Your task to perform on an android device: Open calendar and show me the third week of next month Image 0: 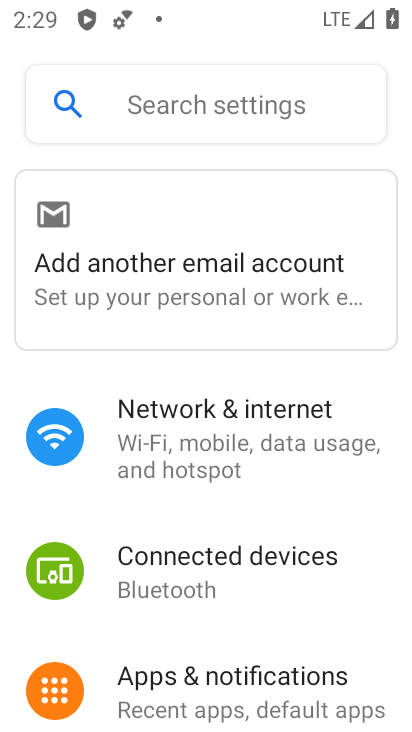
Step 0: press home button
Your task to perform on an android device: Open calendar and show me the third week of next month Image 1: 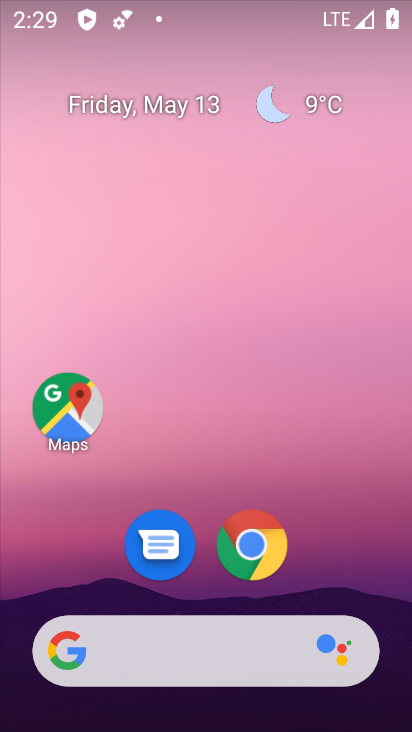
Step 1: drag from (313, 459) to (303, 76)
Your task to perform on an android device: Open calendar and show me the third week of next month Image 2: 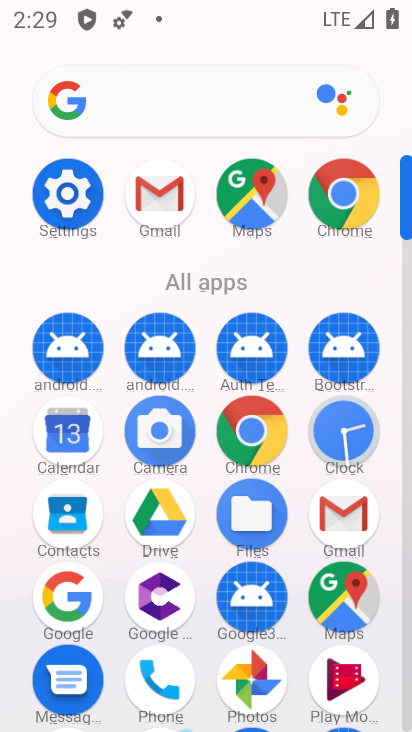
Step 2: click (75, 431)
Your task to perform on an android device: Open calendar and show me the third week of next month Image 3: 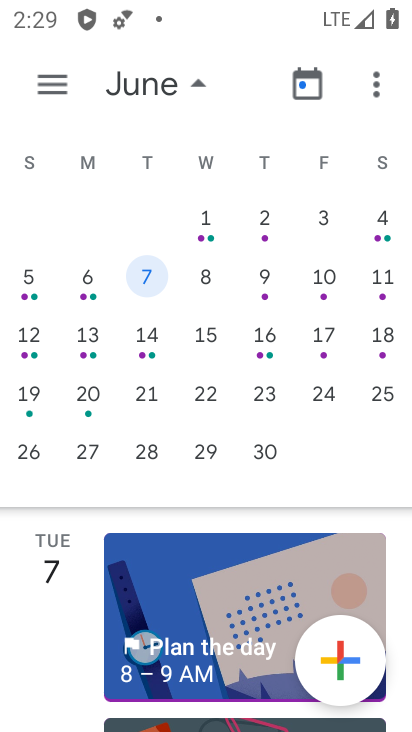
Step 3: click (206, 331)
Your task to perform on an android device: Open calendar and show me the third week of next month Image 4: 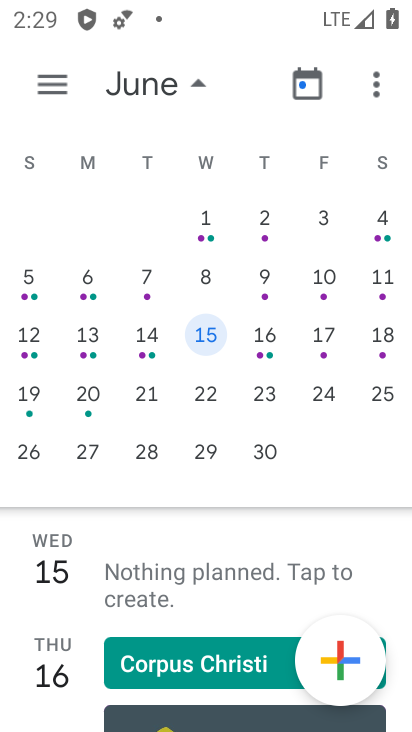
Step 4: task complete